Your task to perform on an android device: move a message to another label in the gmail app Image 0: 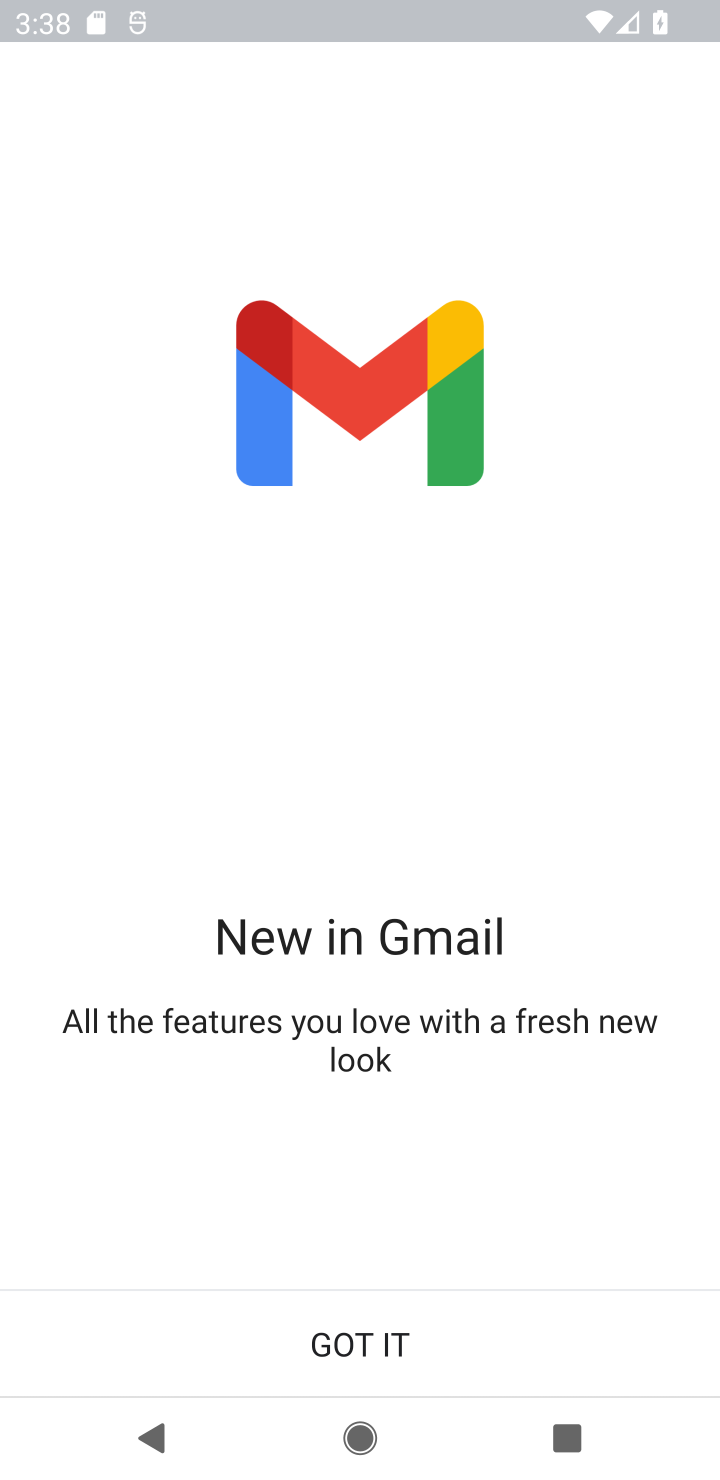
Step 0: press back button
Your task to perform on an android device: move a message to another label in the gmail app Image 1: 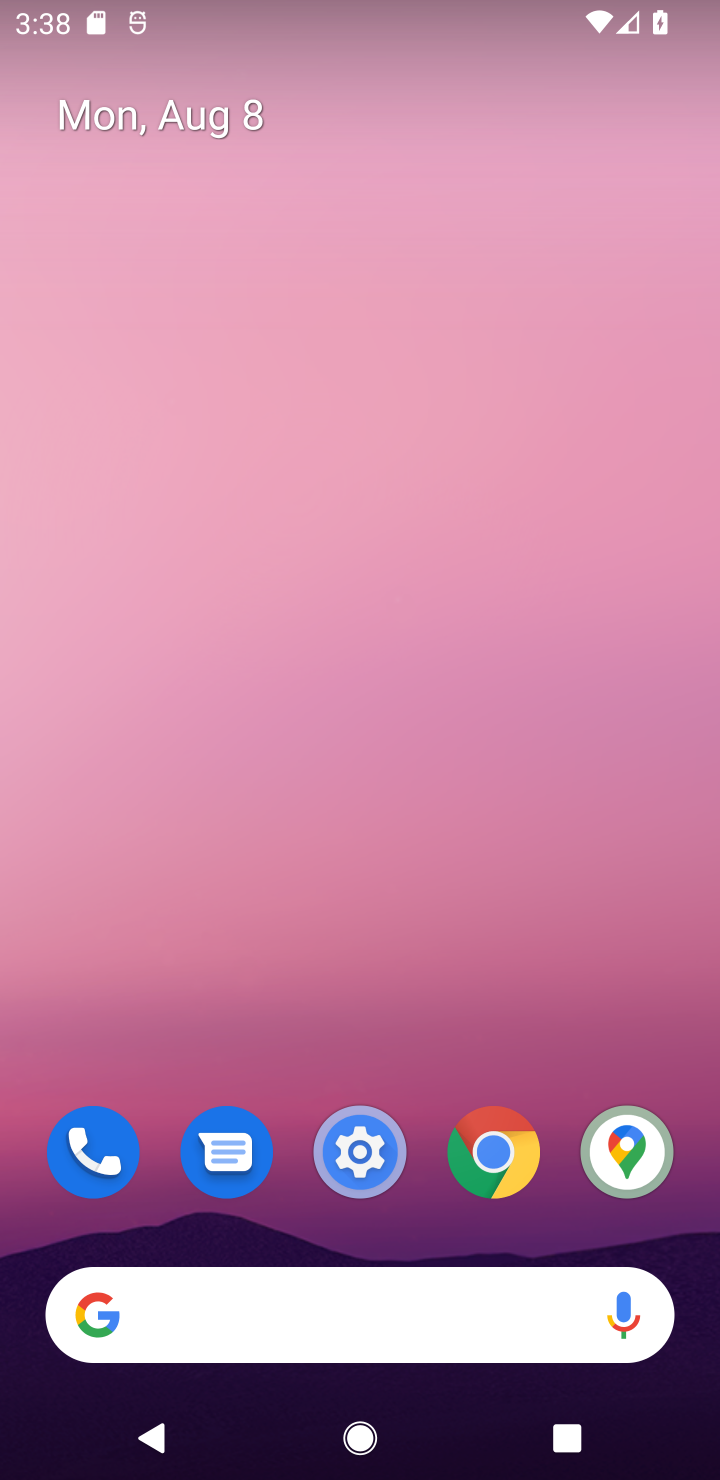
Step 1: drag from (421, 1127) to (562, 125)
Your task to perform on an android device: move a message to another label in the gmail app Image 2: 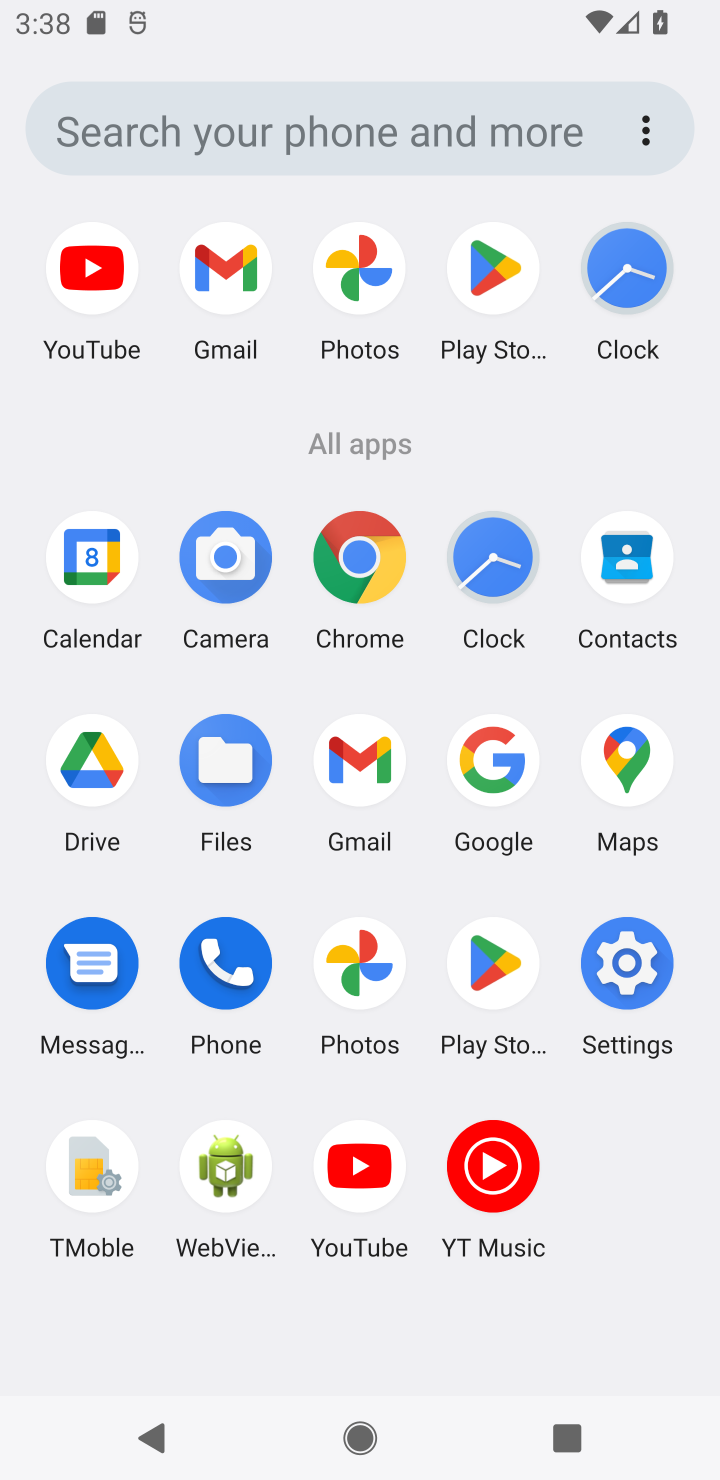
Step 2: click (221, 267)
Your task to perform on an android device: move a message to another label in the gmail app Image 3: 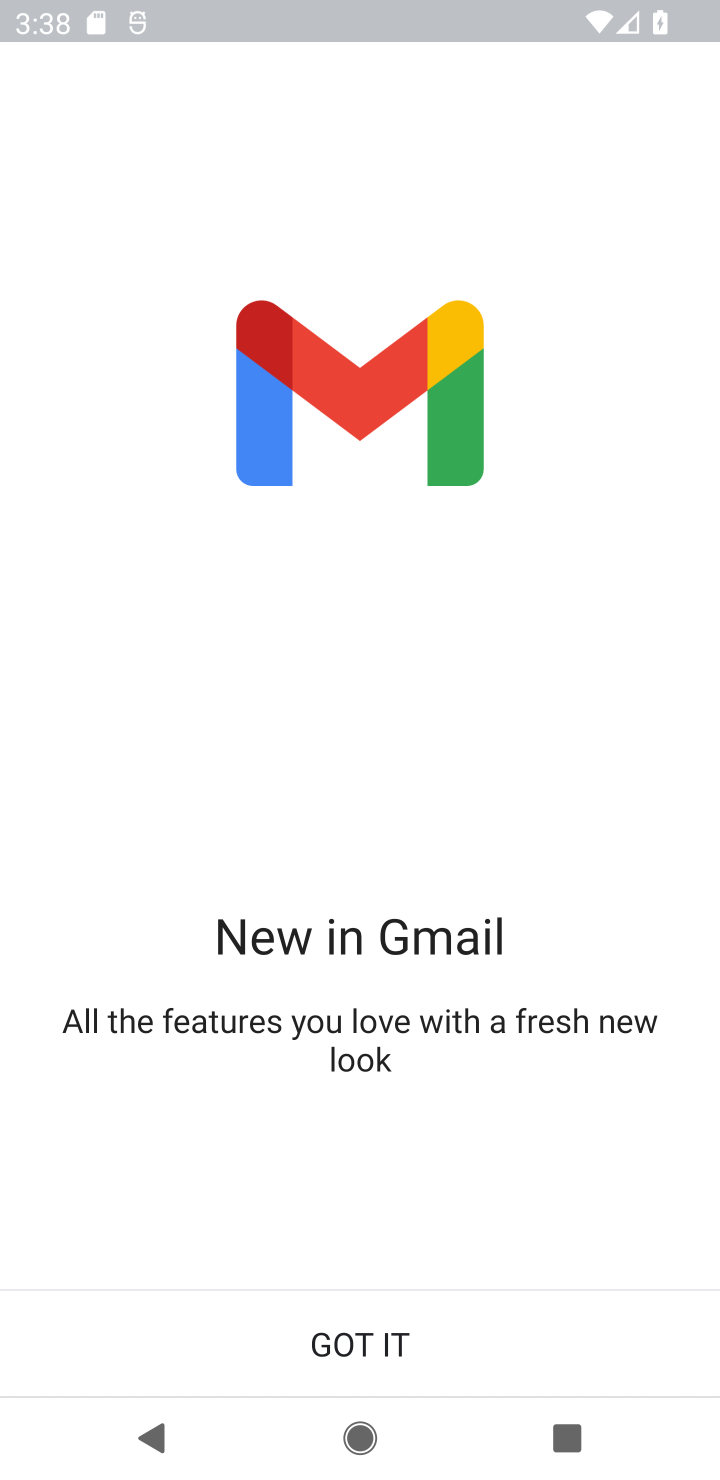
Step 3: click (353, 1385)
Your task to perform on an android device: move a message to another label in the gmail app Image 4: 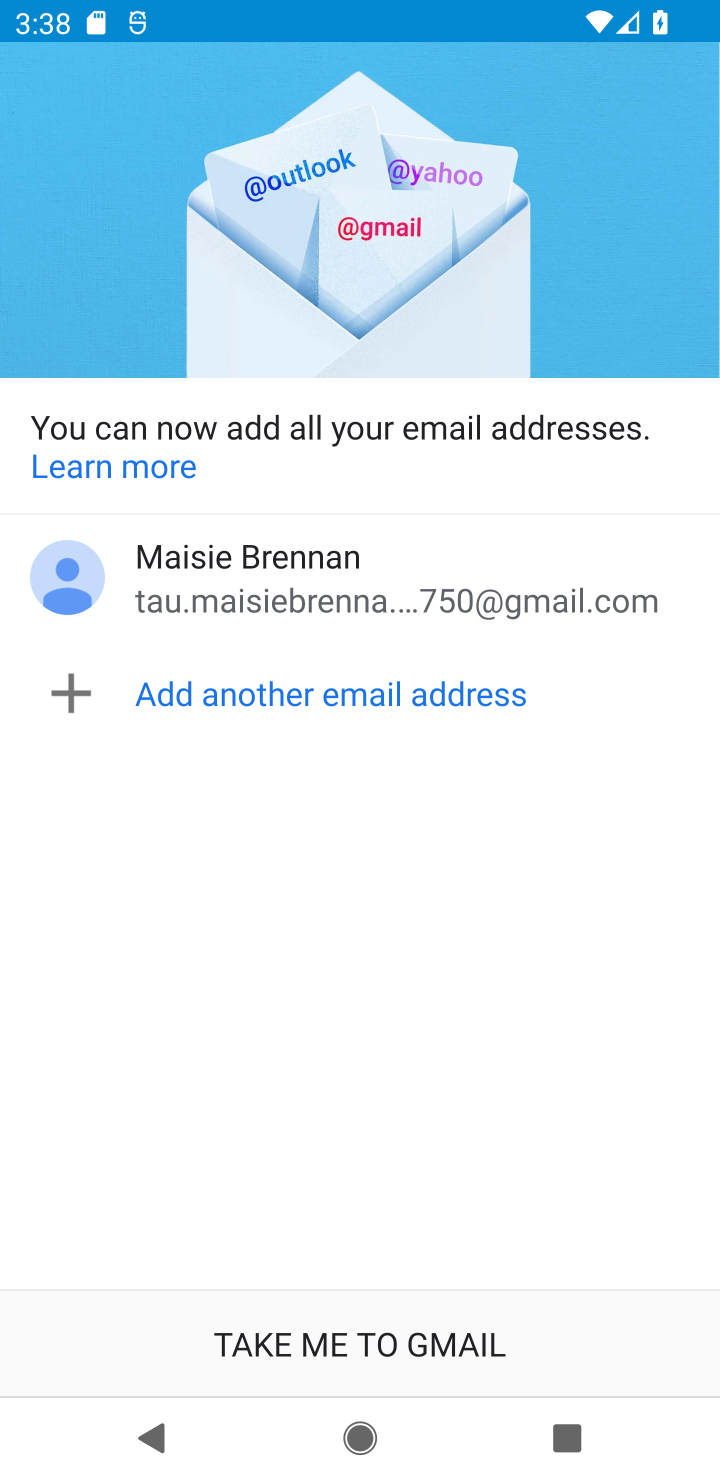
Step 4: click (384, 1324)
Your task to perform on an android device: move a message to another label in the gmail app Image 5: 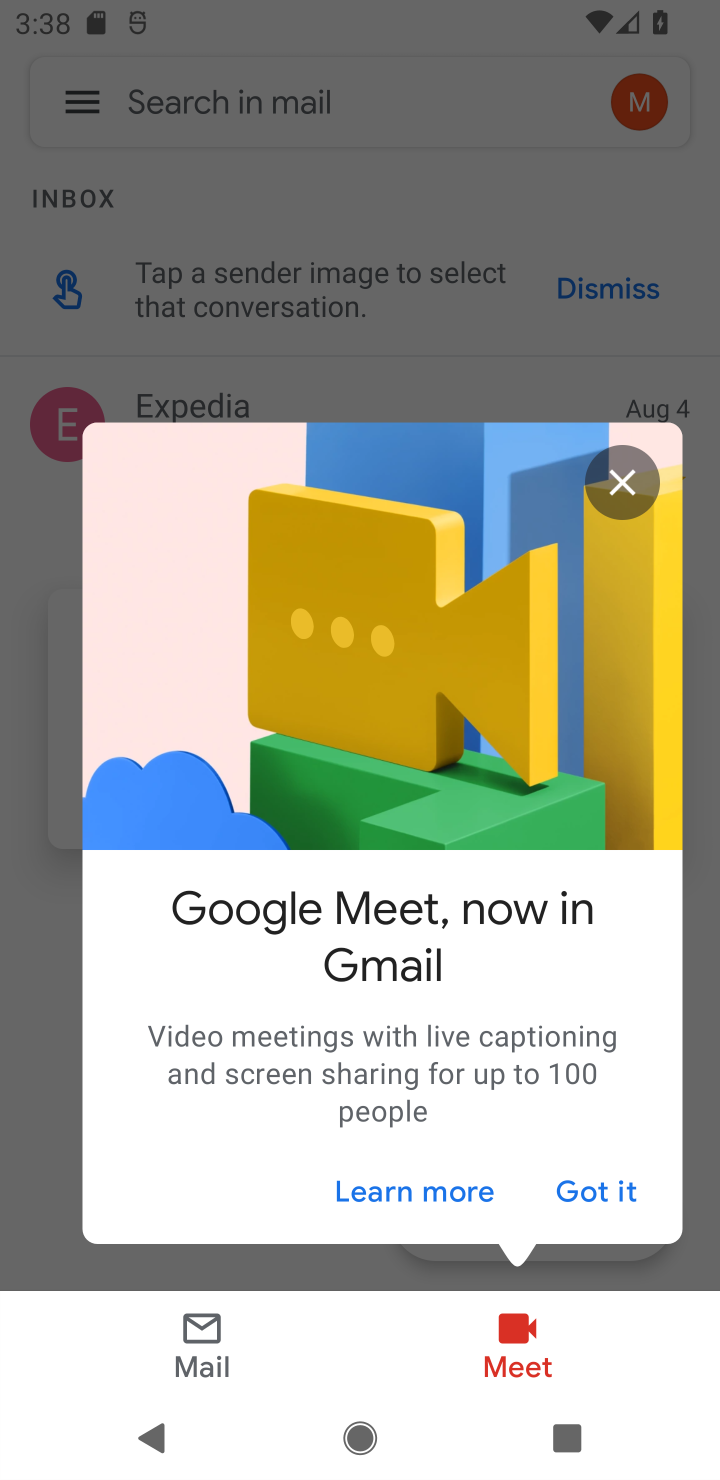
Step 5: click (583, 1202)
Your task to perform on an android device: move a message to another label in the gmail app Image 6: 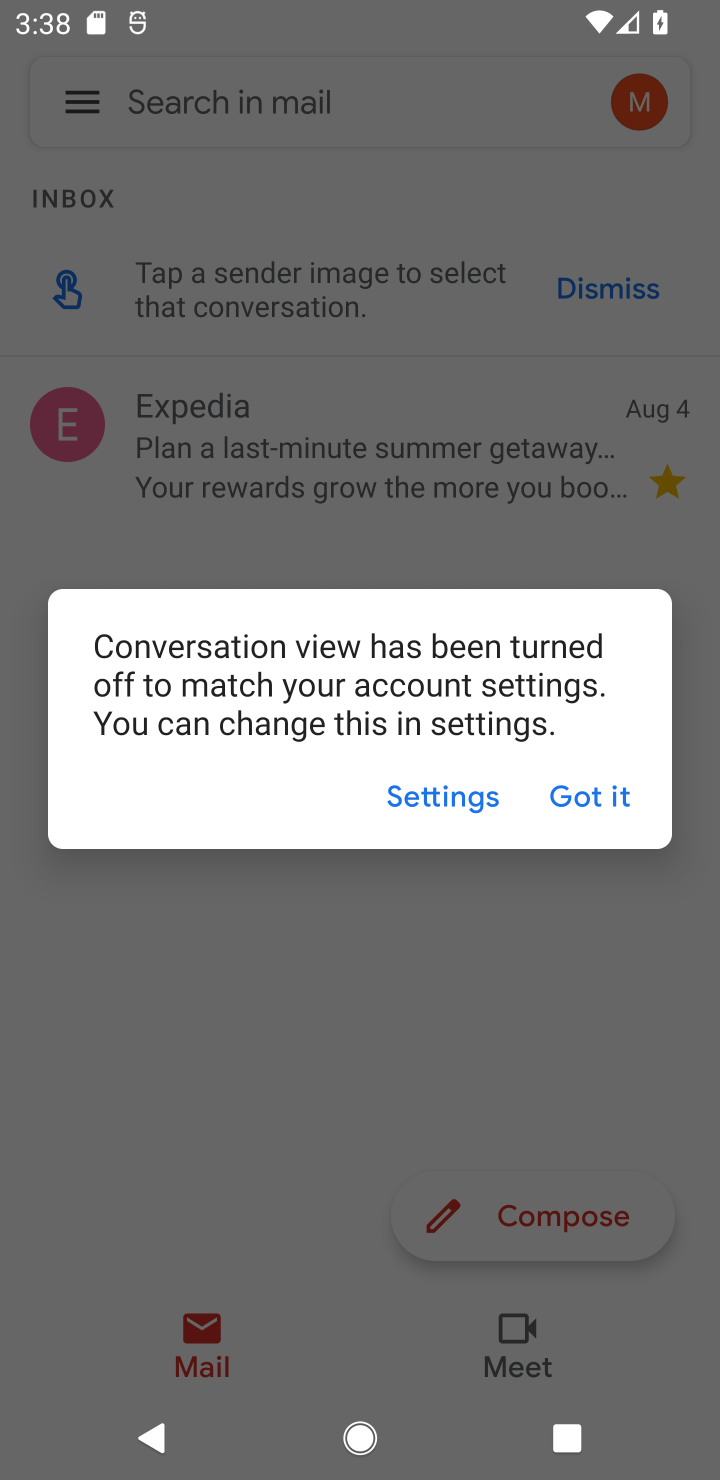
Step 6: click (606, 806)
Your task to perform on an android device: move a message to another label in the gmail app Image 7: 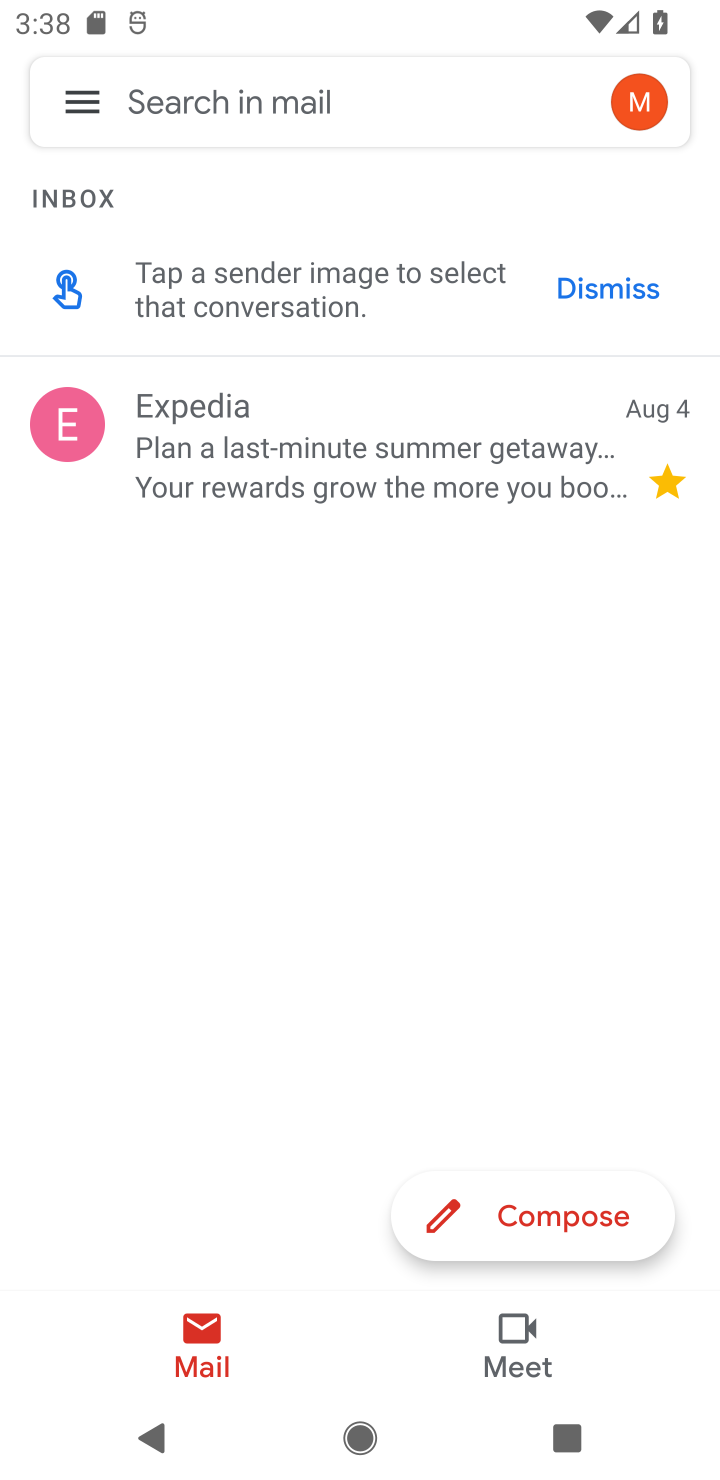
Step 7: click (335, 443)
Your task to perform on an android device: move a message to another label in the gmail app Image 8: 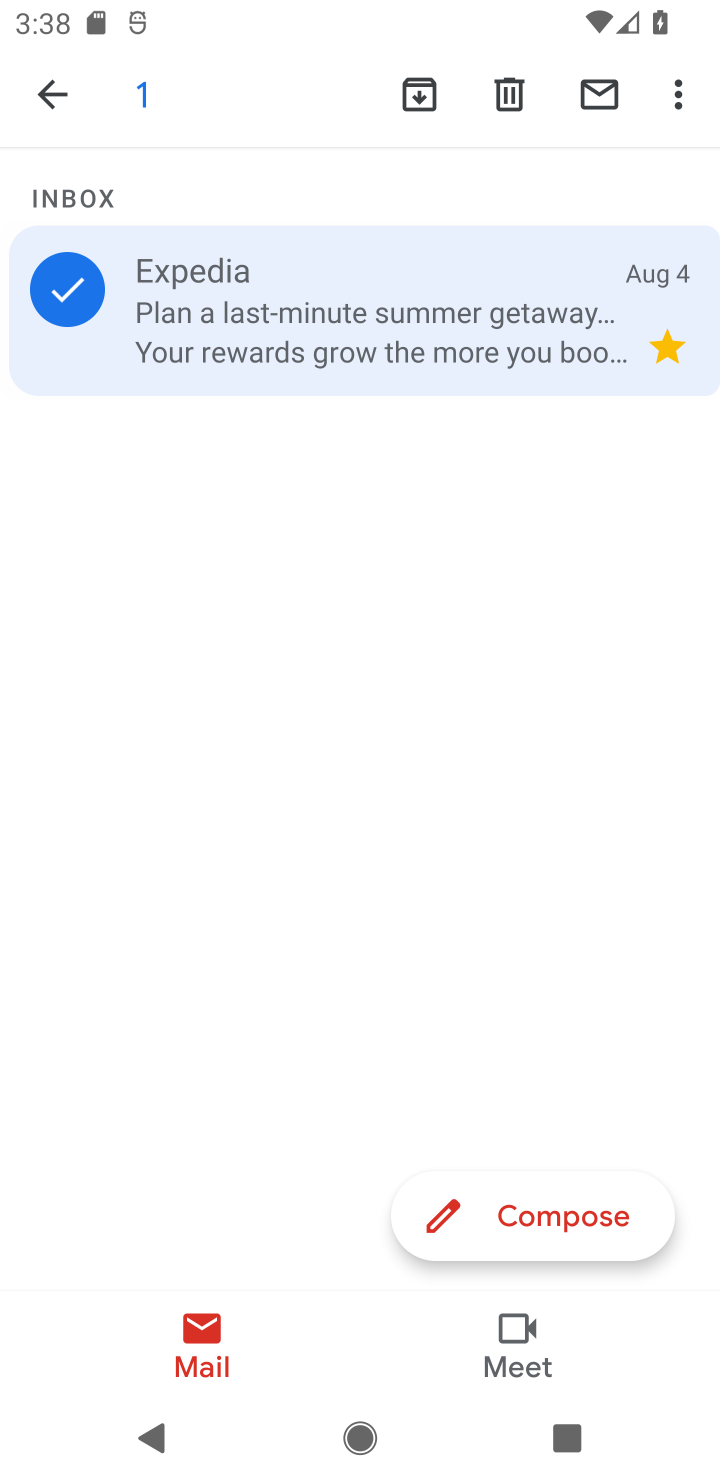
Step 8: click (674, 84)
Your task to perform on an android device: move a message to another label in the gmail app Image 9: 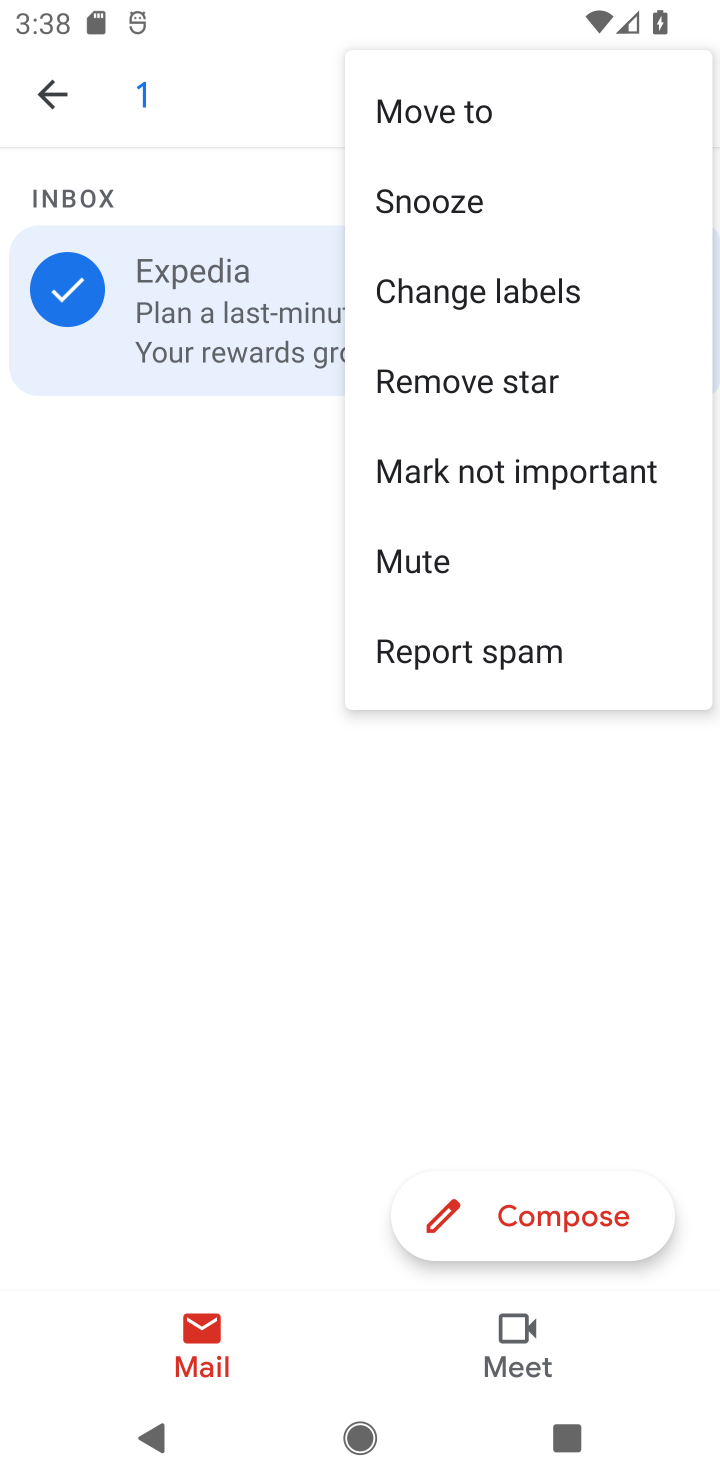
Step 9: click (476, 97)
Your task to perform on an android device: move a message to another label in the gmail app Image 10: 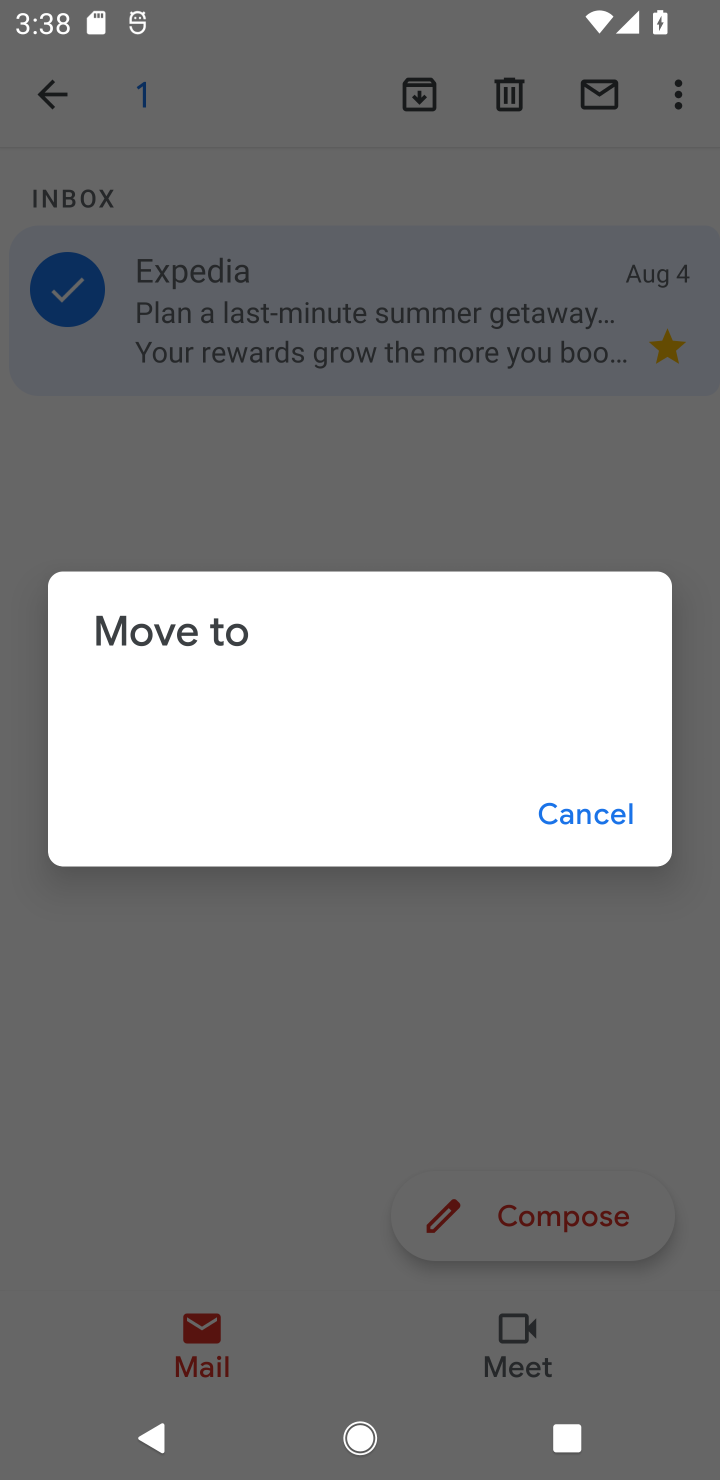
Step 10: task complete